Your task to perform on an android device: Show me popular videos on Youtube Image 0: 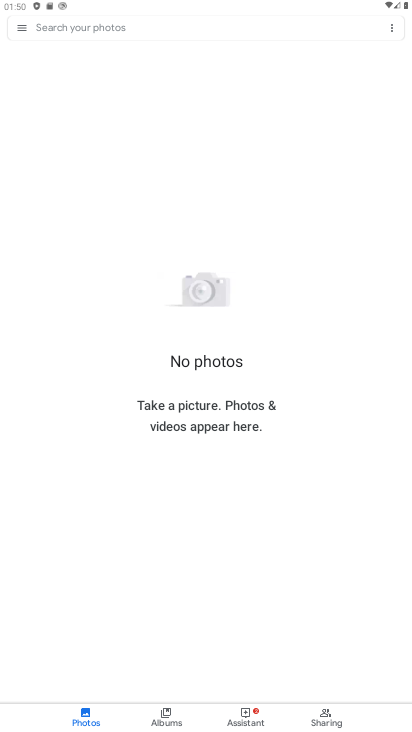
Step 0: press home button
Your task to perform on an android device: Show me popular videos on Youtube Image 1: 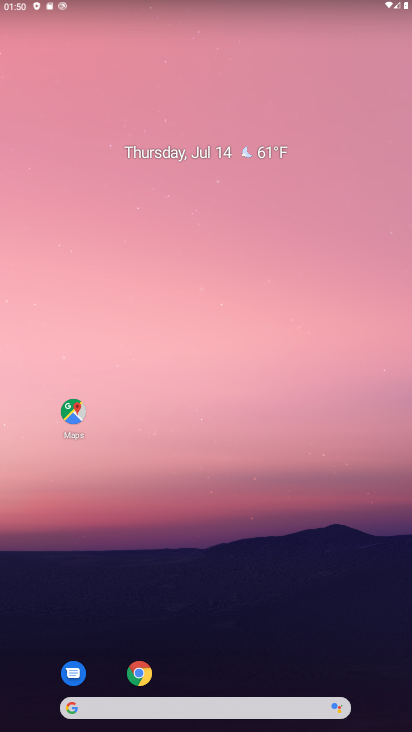
Step 1: drag from (265, 657) to (227, 271)
Your task to perform on an android device: Show me popular videos on Youtube Image 2: 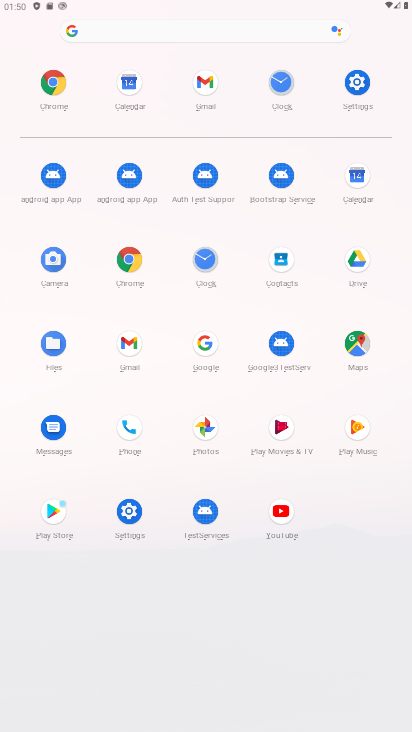
Step 2: click (285, 532)
Your task to perform on an android device: Show me popular videos on Youtube Image 3: 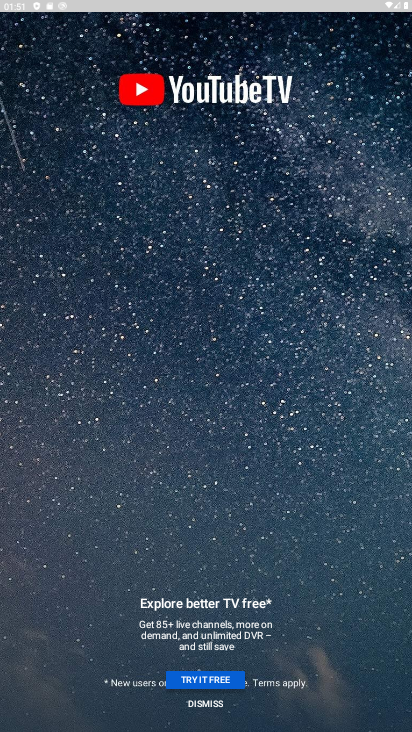
Step 3: click (212, 675)
Your task to perform on an android device: Show me popular videos on Youtube Image 4: 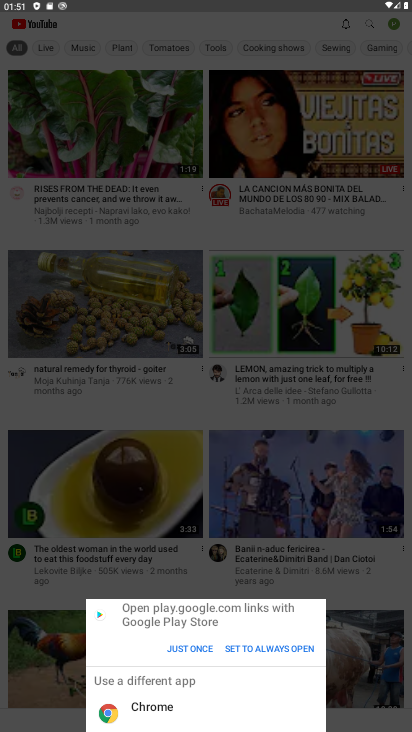
Step 4: click (249, 581)
Your task to perform on an android device: Show me popular videos on Youtube Image 5: 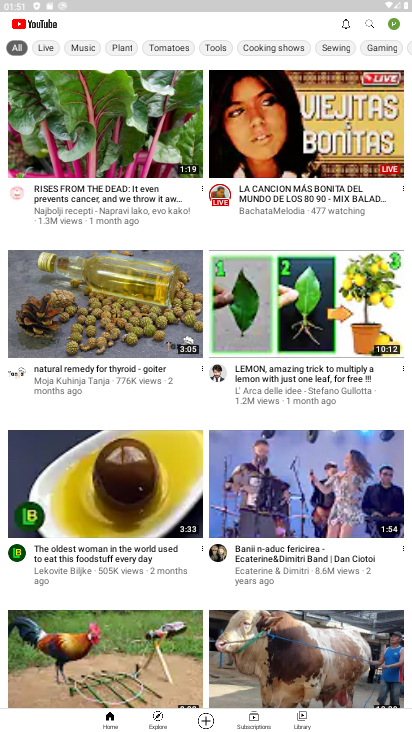
Step 5: task complete